Your task to perform on an android device: snooze an email in the gmail app Image 0: 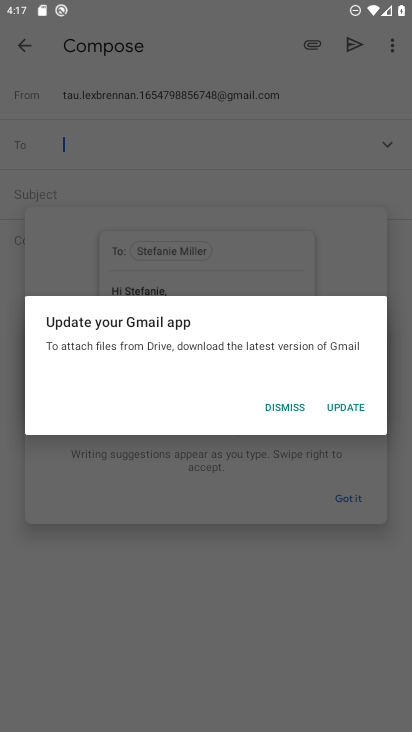
Step 0: press home button
Your task to perform on an android device: snooze an email in the gmail app Image 1: 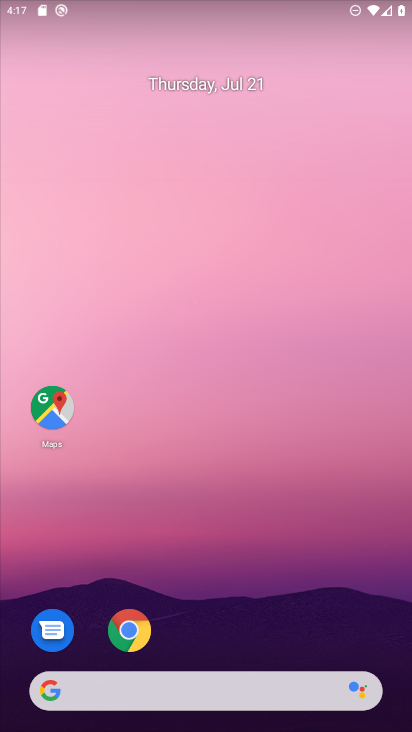
Step 1: drag from (24, 668) to (203, 219)
Your task to perform on an android device: snooze an email in the gmail app Image 2: 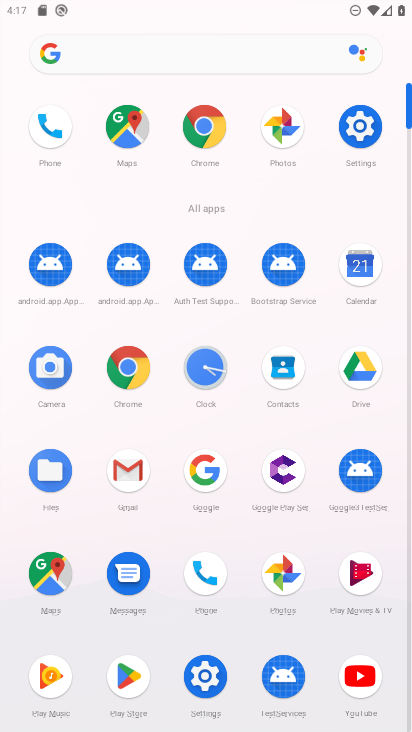
Step 2: click (118, 476)
Your task to perform on an android device: snooze an email in the gmail app Image 3: 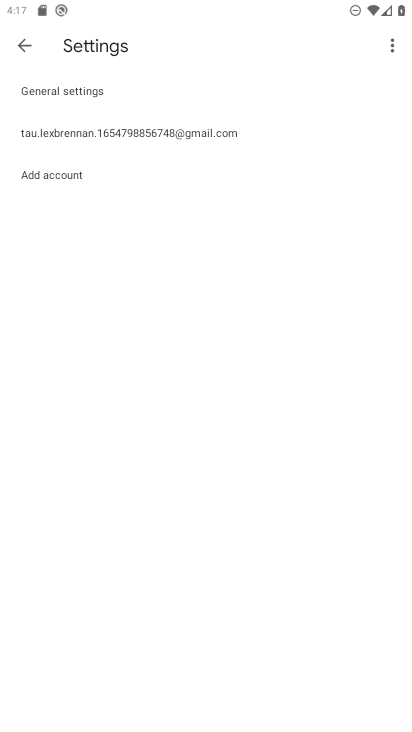
Step 3: click (24, 45)
Your task to perform on an android device: snooze an email in the gmail app Image 4: 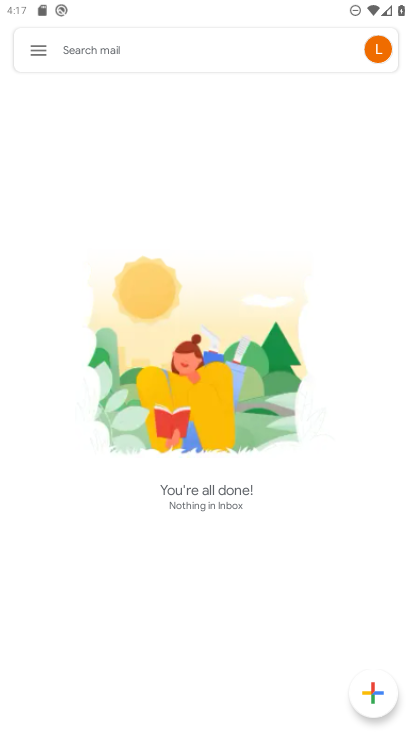
Step 4: click (42, 43)
Your task to perform on an android device: snooze an email in the gmail app Image 5: 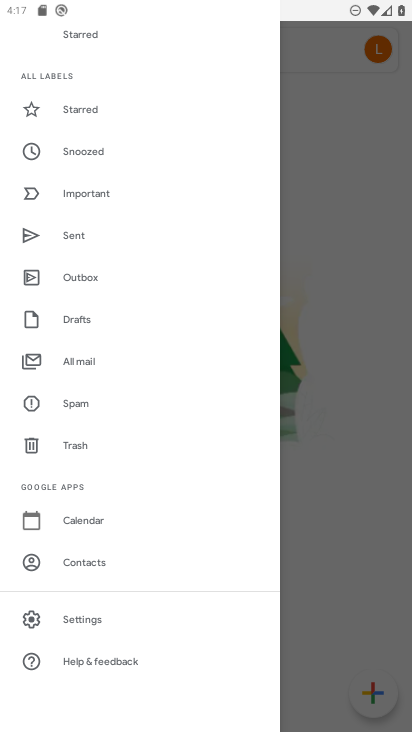
Step 5: click (77, 154)
Your task to perform on an android device: snooze an email in the gmail app Image 6: 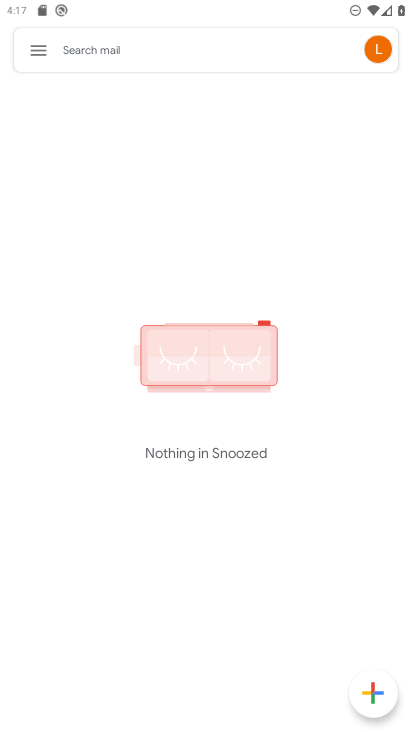
Step 6: task complete